Your task to perform on an android device: Open privacy settings Image 0: 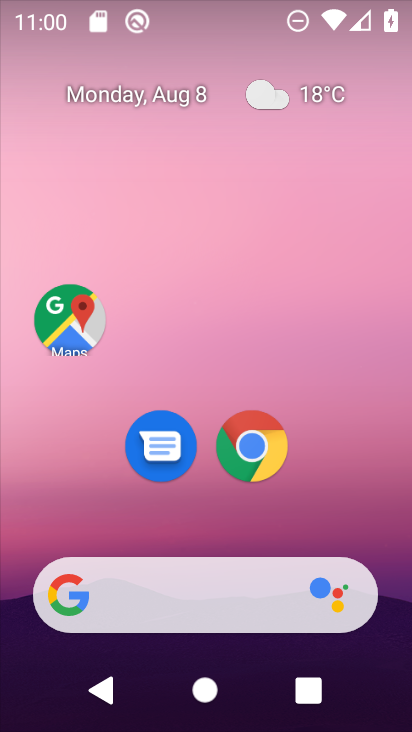
Step 0: drag from (386, 607) to (349, 115)
Your task to perform on an android device: Open privacy settings Image 1: 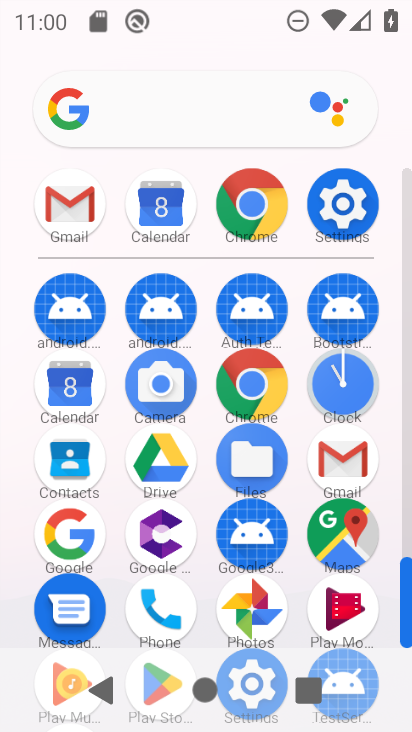
Step 1: drag from (409, 536) to (407, 474)
Your task to perform on an android device: Open privacy settings Image 2: 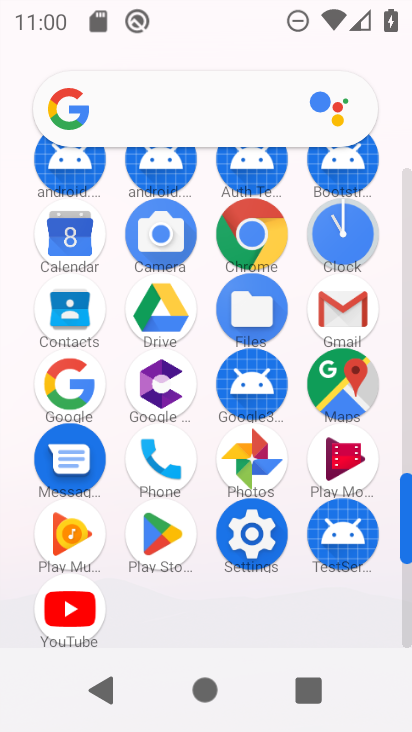
Step 2: click (246, 534)
Your task to perform on an android device: Open privacy settings Image 3: 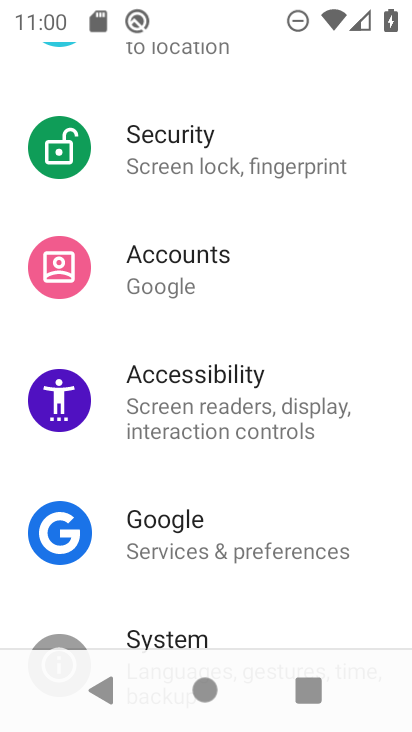
Step 3: drag from (338, 278) to (335, 522)
Your task to perform on an android device: Open privacy settings Image 4: 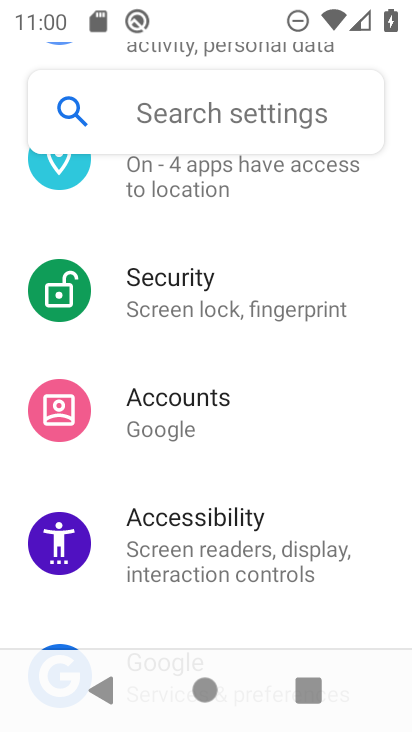
Step 4: drag from (347, 238) to (373, 449)
Your task to perform on an android device: Open privacy settings Image 5: 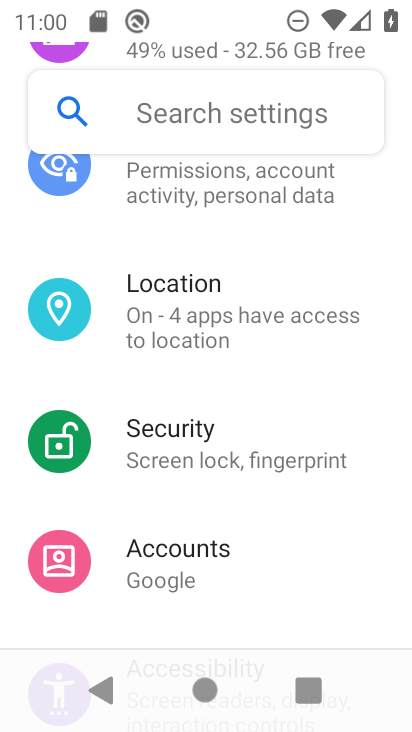
Step 5: drag from (364, 244) to (381, 499)
Your task to perform on an android device: Open privacy settings Image 6: 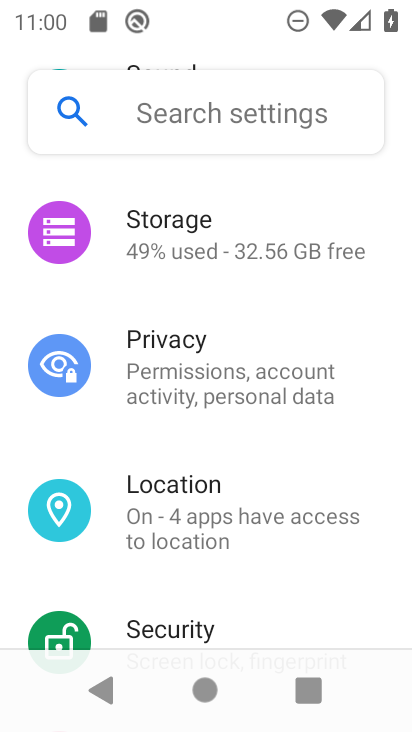
Step 6: click (149, 347)
Your task to perform on an android device: Open privacy settings Image 7: 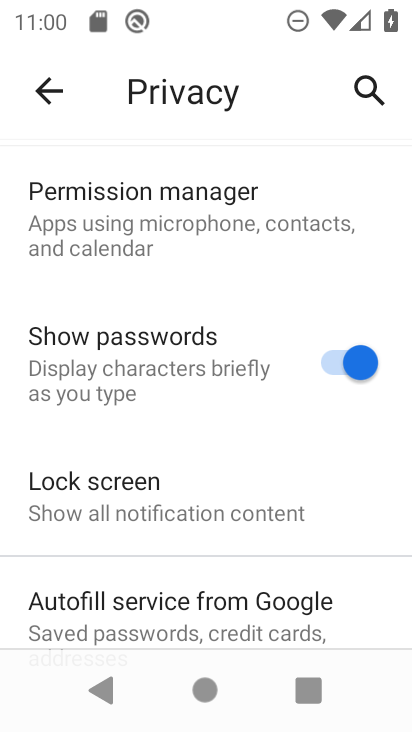
Step 7: drag from (251, 535) to (265, 171)
Your task to perform on an android device: Open privacy settings Image 8: 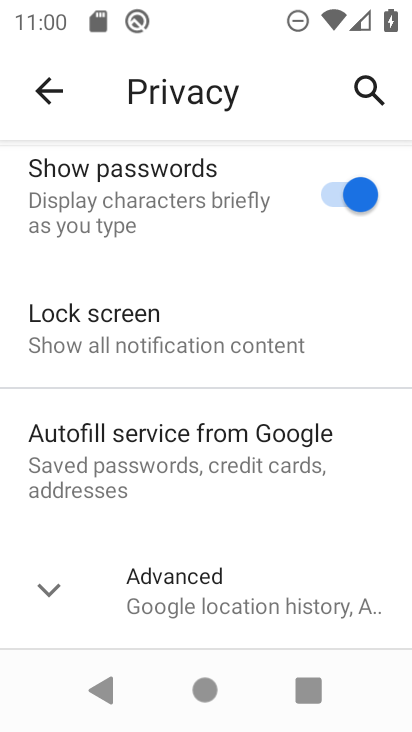
Step 8: click (35, 596)
Your task to perform on an android device: Open privacy settings Image 9: 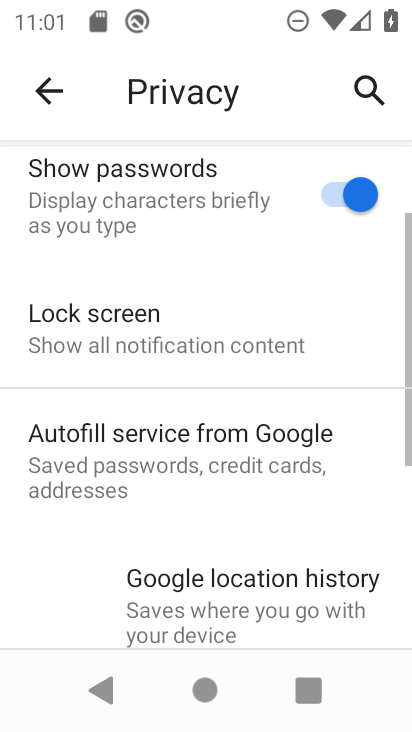
Step 9: task complete